Your task to perform on an android device: turn on translation in the chrome app Image 0: 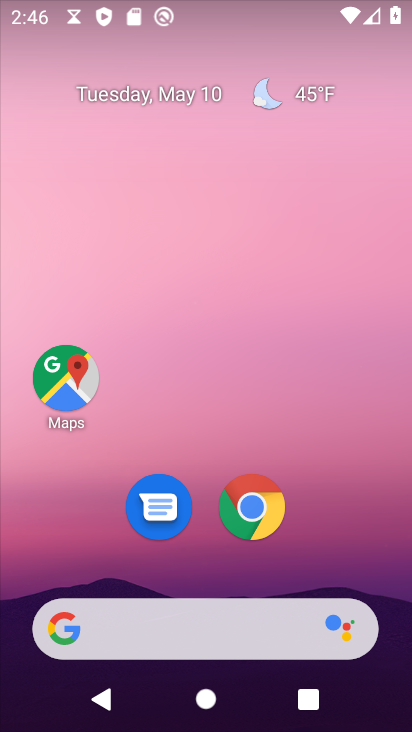
Step 0: click (242, 503)
Your task to perform on an android device: turn on translation in the chrome app Image 1: 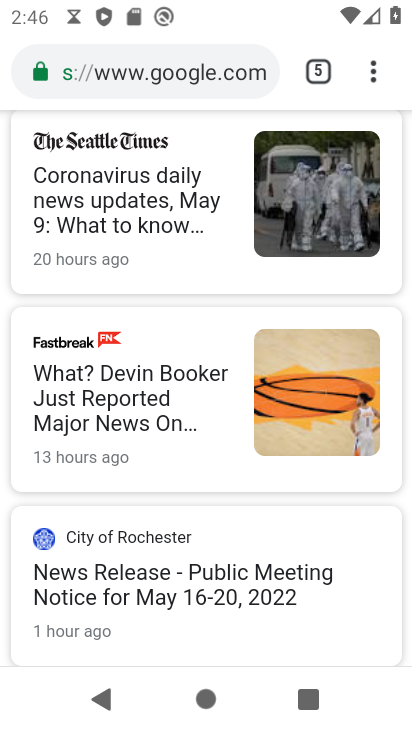
Step 1: click (371, 72)
Your task to perform on an android device: turn on translation in the chrome app Image 2: 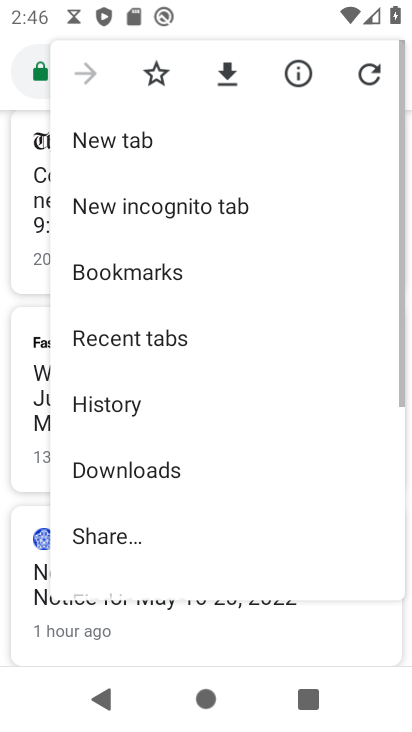
Step 2: drag from (215, 539) to (231, 157)
Your task to perform on an android device: turn on translation in the chrome app Image 3: 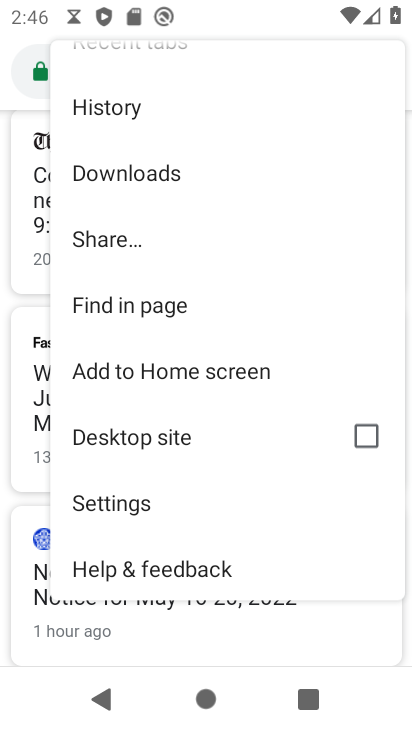
Step 3: click (112, 503)
Your task to perform on an android device: turn on translation in the chrome app Image 4: 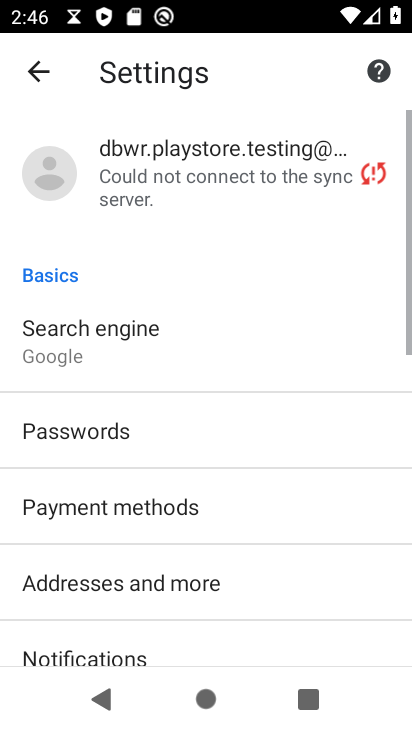
Step 4: drag from (126, 582) to (167, 174)
Your task to perform on an android device: turn on translation in the chrome app Image 5: 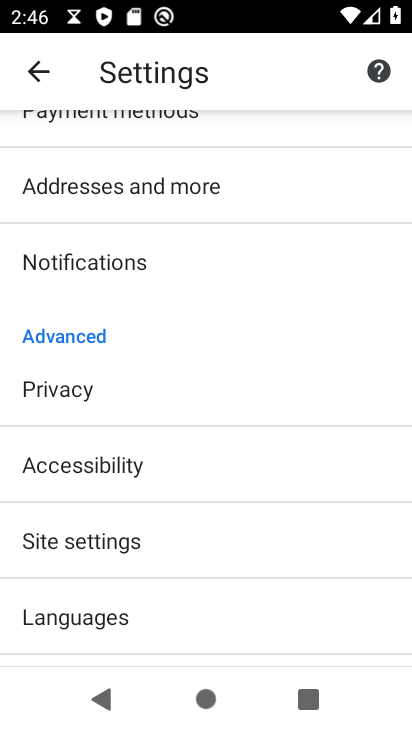
Step 5: click (100, 617)
Your task to perform on an android device: turn on translation in the chrome app Image 6: 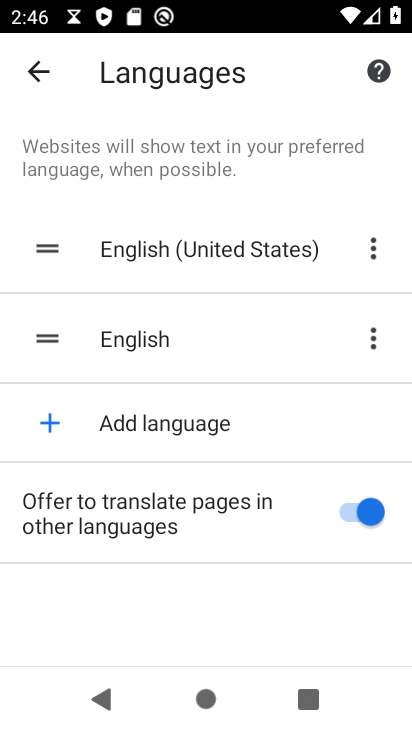
Step 6: task complete